Your task to perform on an android device: Go to calendar. Show me events next week Image 0: 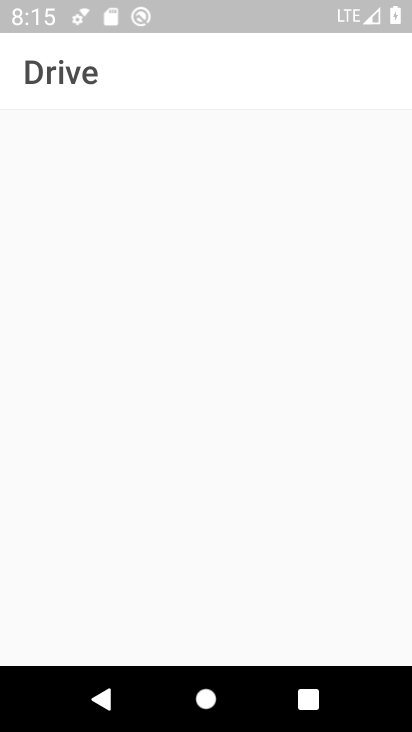
Step 0: press home button
Your task to perform on an android device: Go to calendar. Show me events next week Image 1: 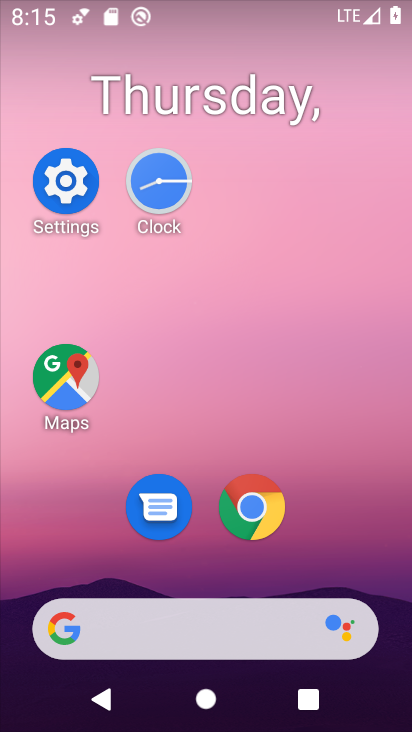
Step 1: drag from (378, 289) to (248, 22)
Your task to perform on an android device: Go to calendar. Show me events next week Image 2: 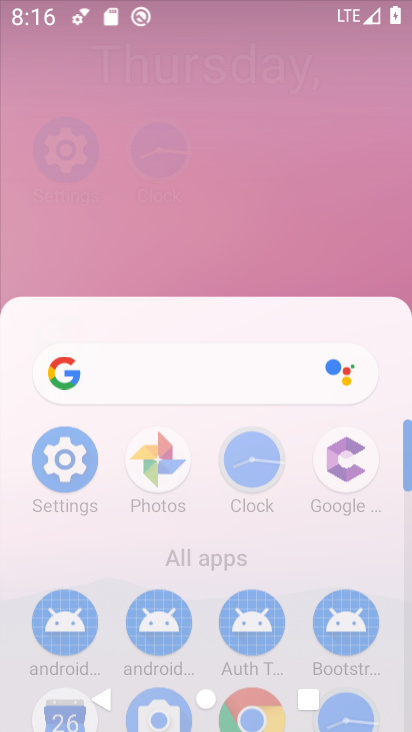
Step 2: click (325, 191)
Your task to perform on an android device: Go to calendar. Show me events next week Image 3: 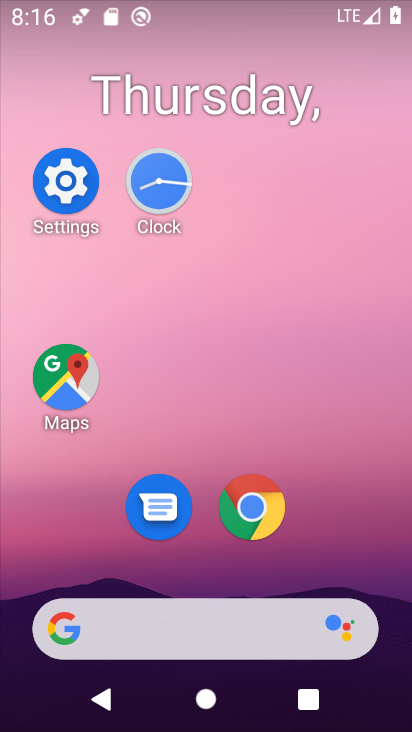
Step 3: drag from (338, 571) to (397, 265)
Your task to perform on an android device: Go to calendar. Show me events next week Image 4: 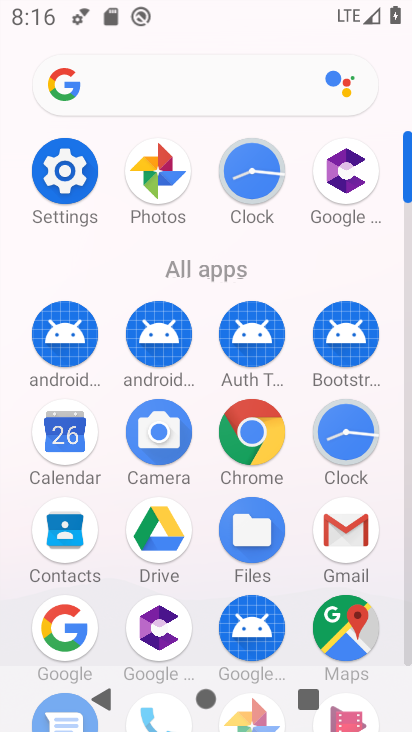
Step 4: drag from (84, 454) to (235, 223)
Your task to perform on an android device: Go to calendar. Show me events next week Image 5: 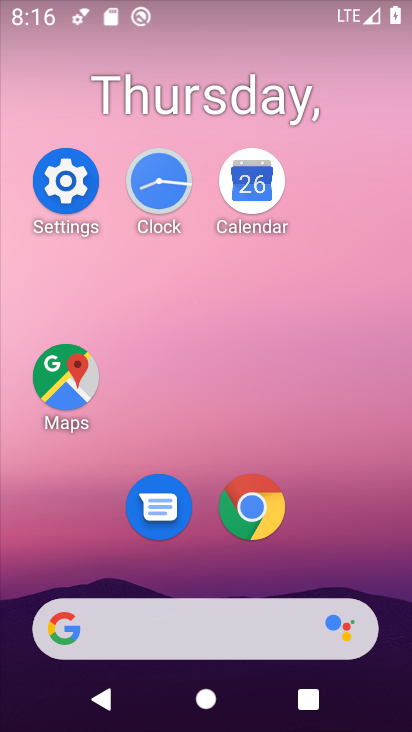
Step 5: click (272, 172)
Your task to perform on an android device: Go to calendar. Show me events next week Image 6: 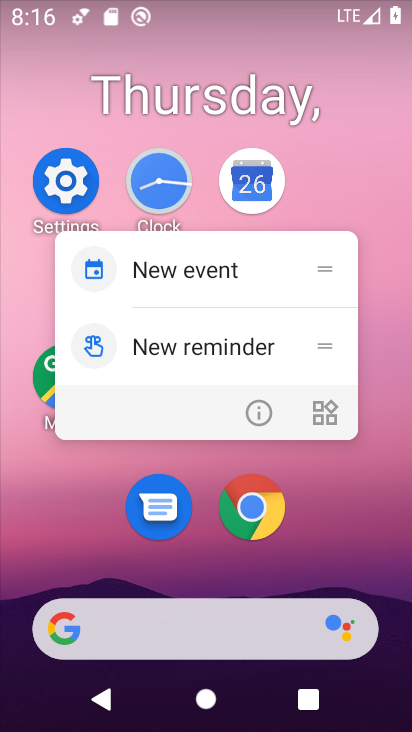
Step 6: click (254, 208)
Your task to perform on an android device: Go to calendar. Show me events next week Image 7: 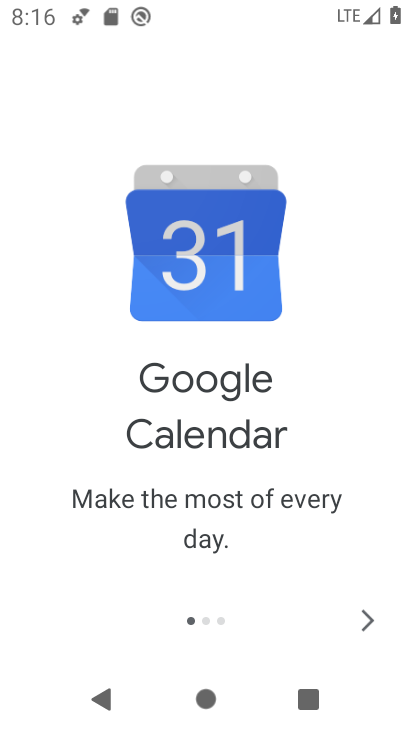
Step 7: click (357, 623)
Your task to perform on an android device: Go to calendar. Show me events next week Image 8: 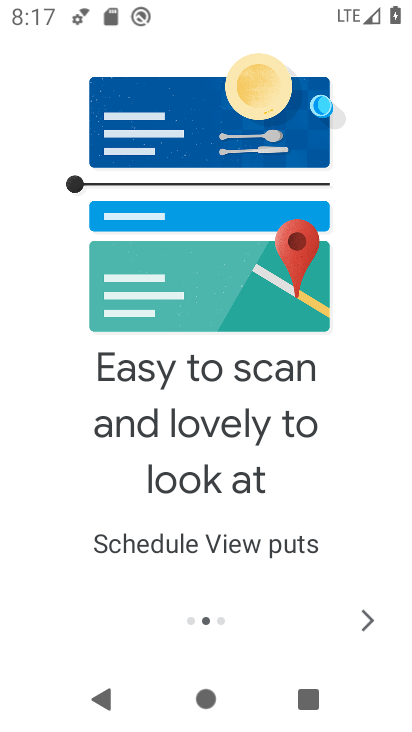
Step 8: click (374, 613)
Your task to perform on an android device: Go to calendar. Show me events next week Image 9: 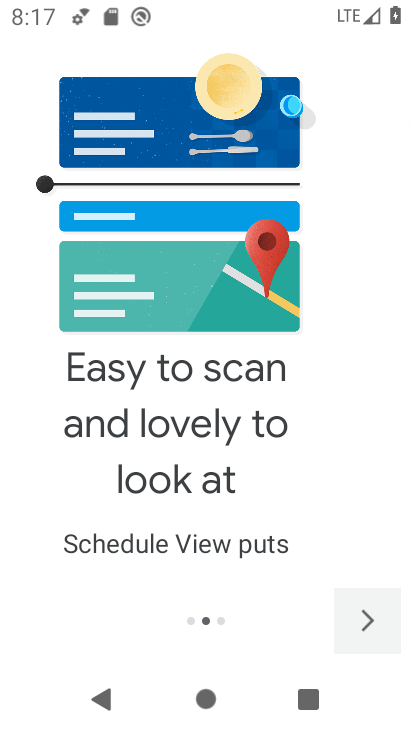
Step 9: click (374, 613)
Your task to perform on an android device: Go to calendar. Show me events next week Image 10: 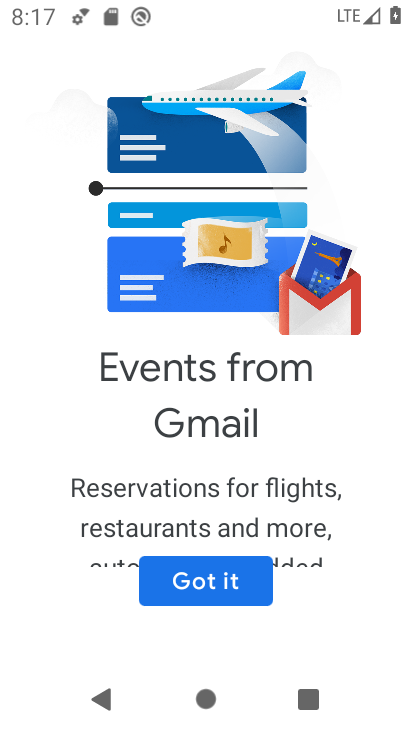
Step 10: click (374, 613)
Your task to perform on an android device: Go to calendar. Show me events next week Image 11: 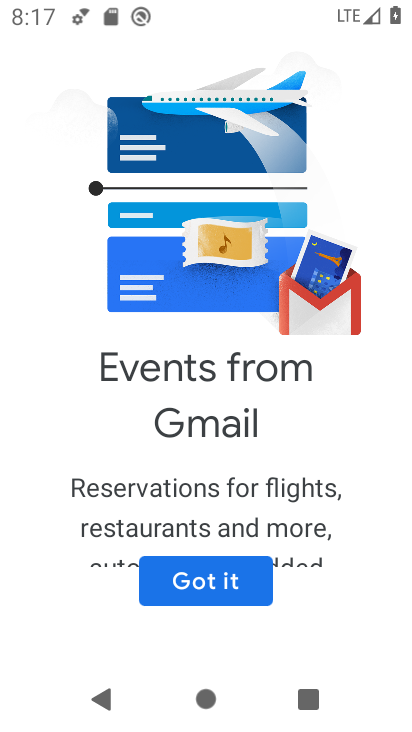
Step 11: click (251, 588)
Your task to perform on an android device: Go to calendar. Show me events next week Image 12: 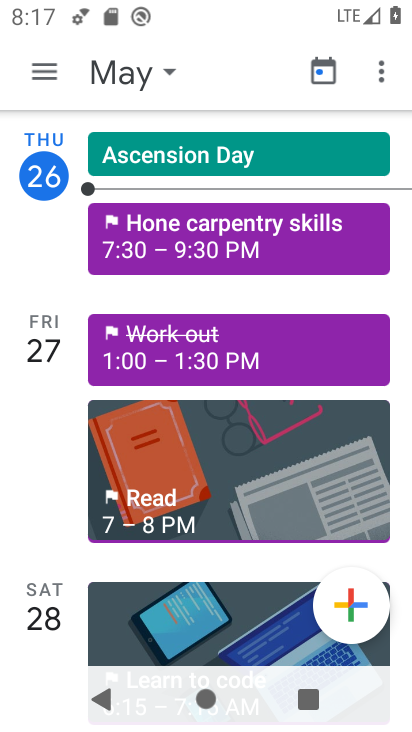
Step 12: click (55, 82)
Your task to perform on an android device: Go to calendar. Show me events next week Image 13: 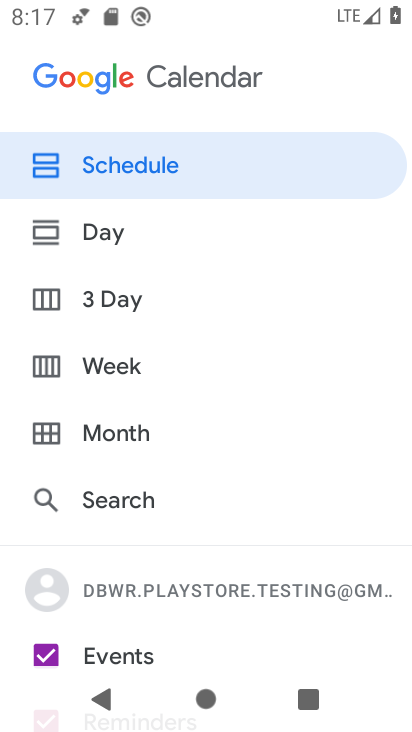
Step 13: click (149, 354)
Your task to perform on an android device: Go to calendar. Show me events next week Image 14: 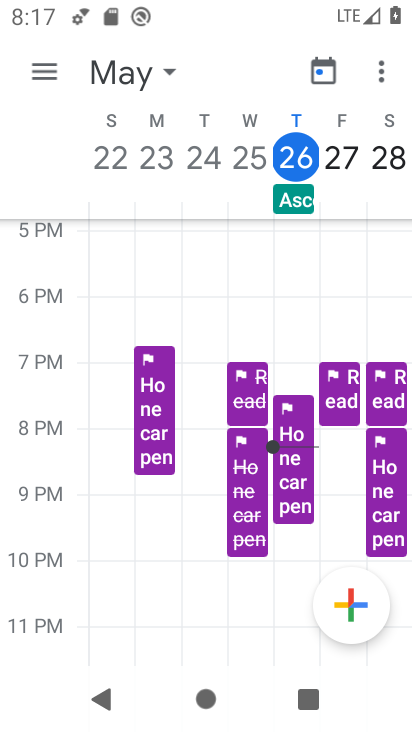
Step 14: task complete